Your task to perform on an android device: Open Reddit.com Image 0: 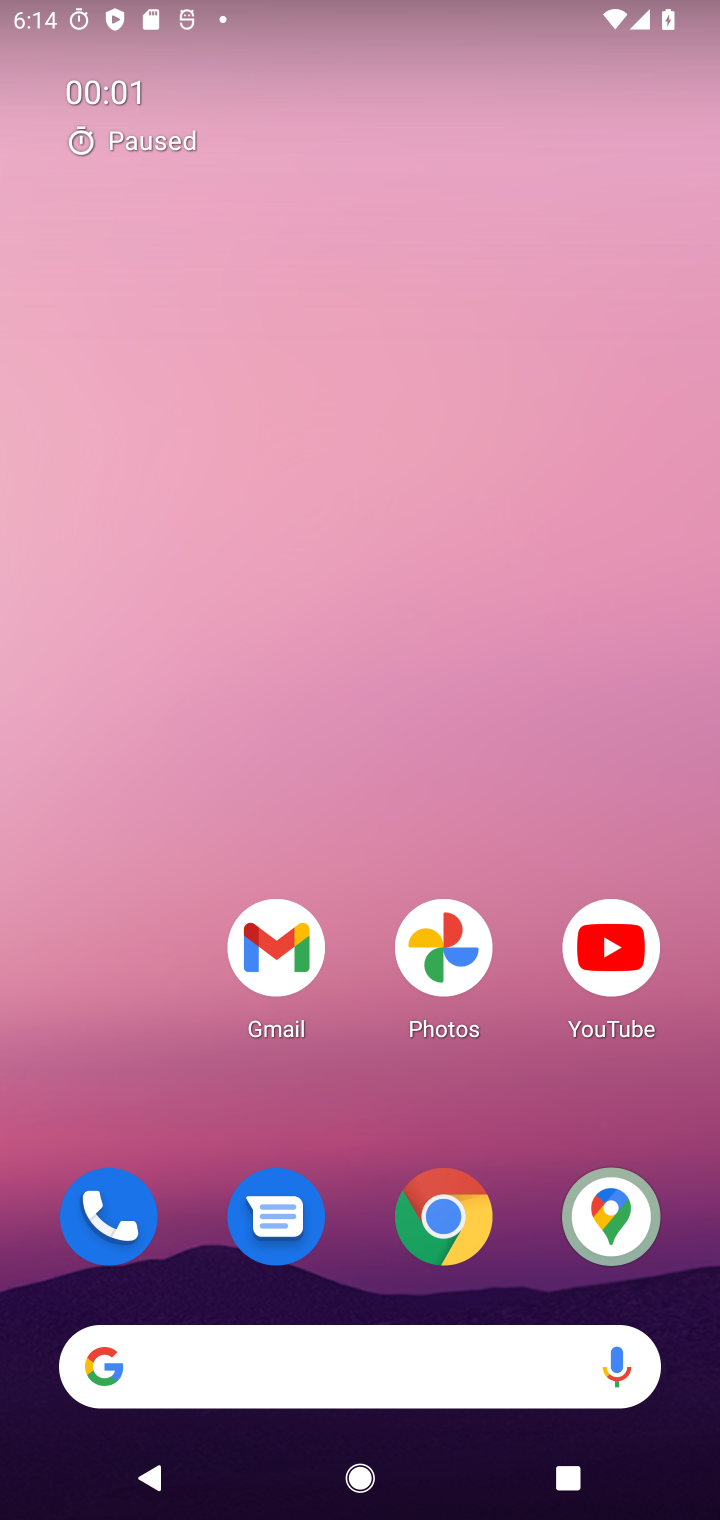
Step 0: drag from (538, 1092) to (432, 96)
Your task to perform on an android device: Open Reddit.com Image 1: 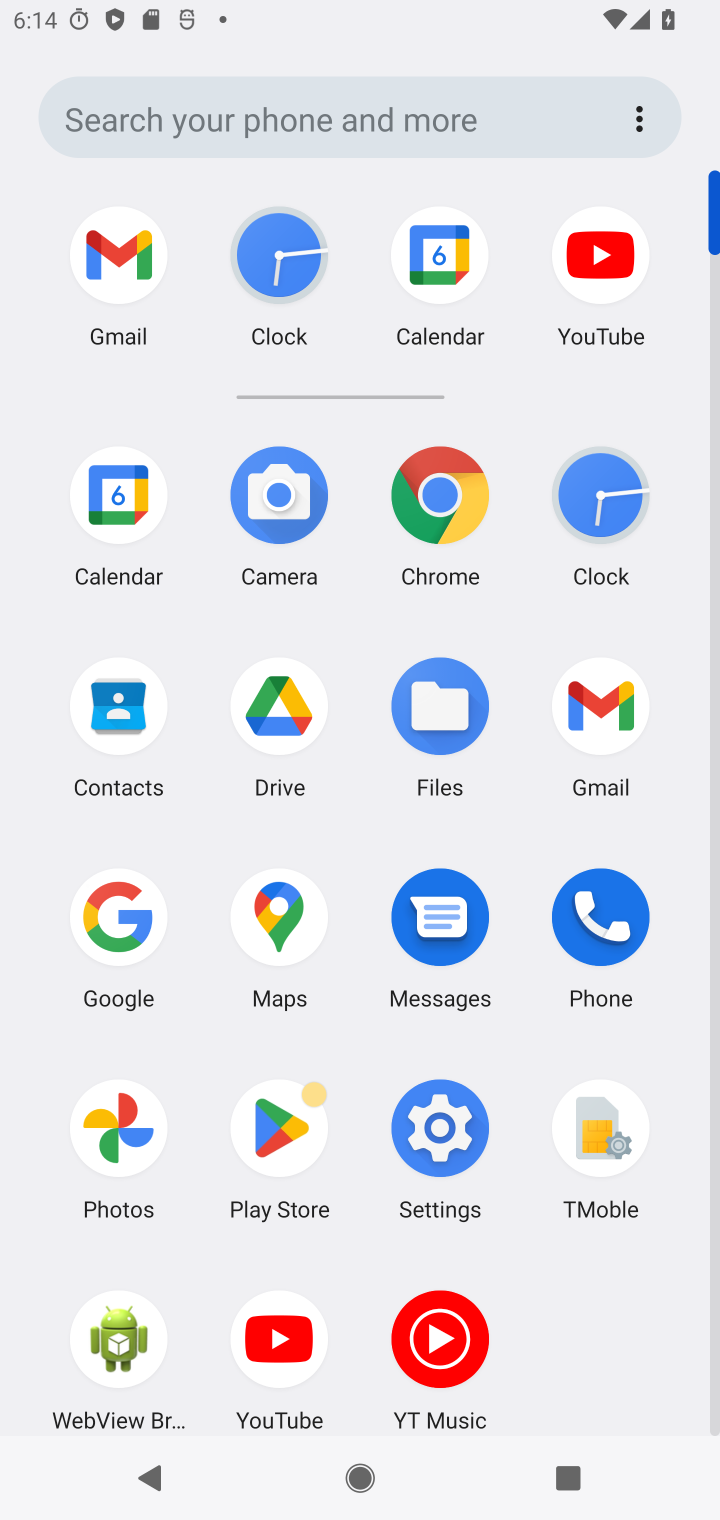
Step 1: click (440, 494)
Your task to perform on an android device: Open Reddit.com Image 2: 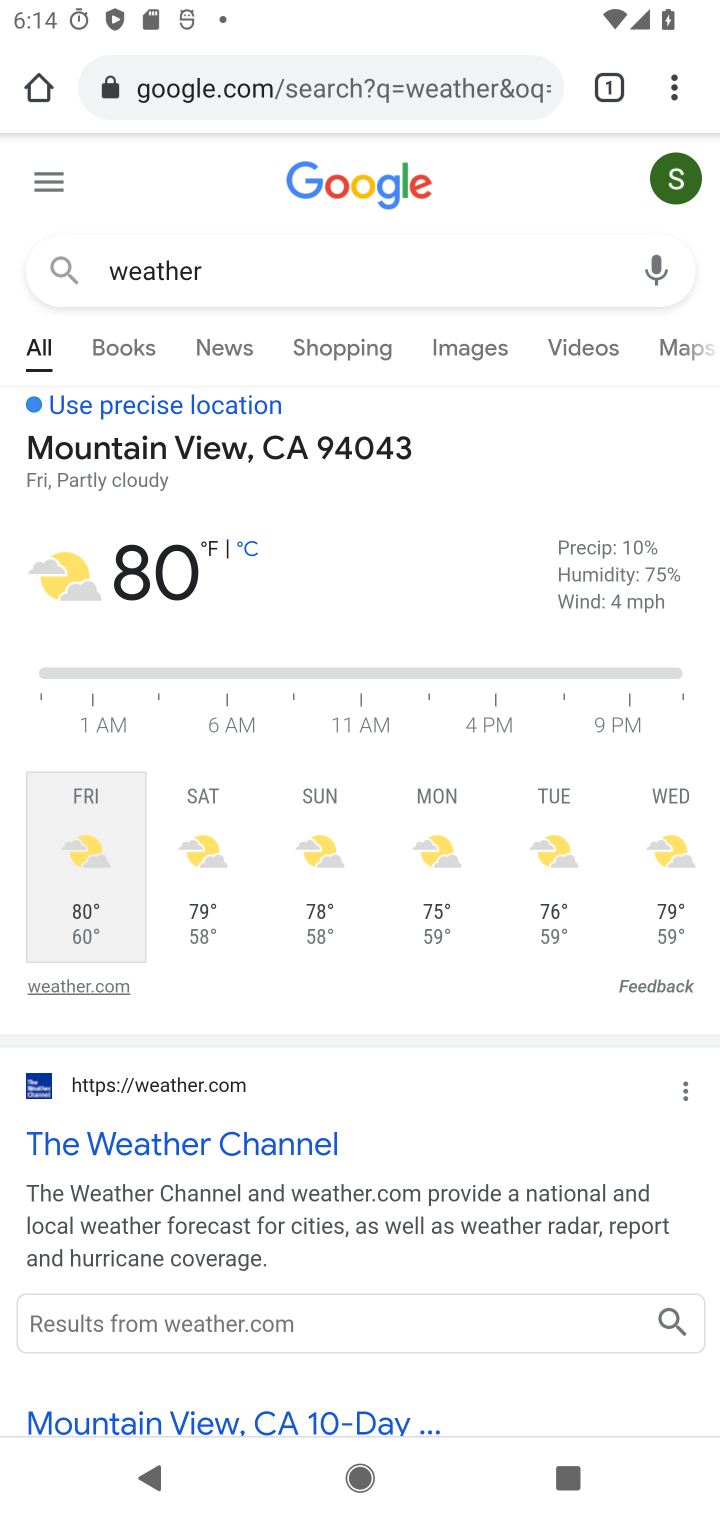
Step 2: click (346, 64)
Your task to perform on an android device: Open Reddit.com Image 3: 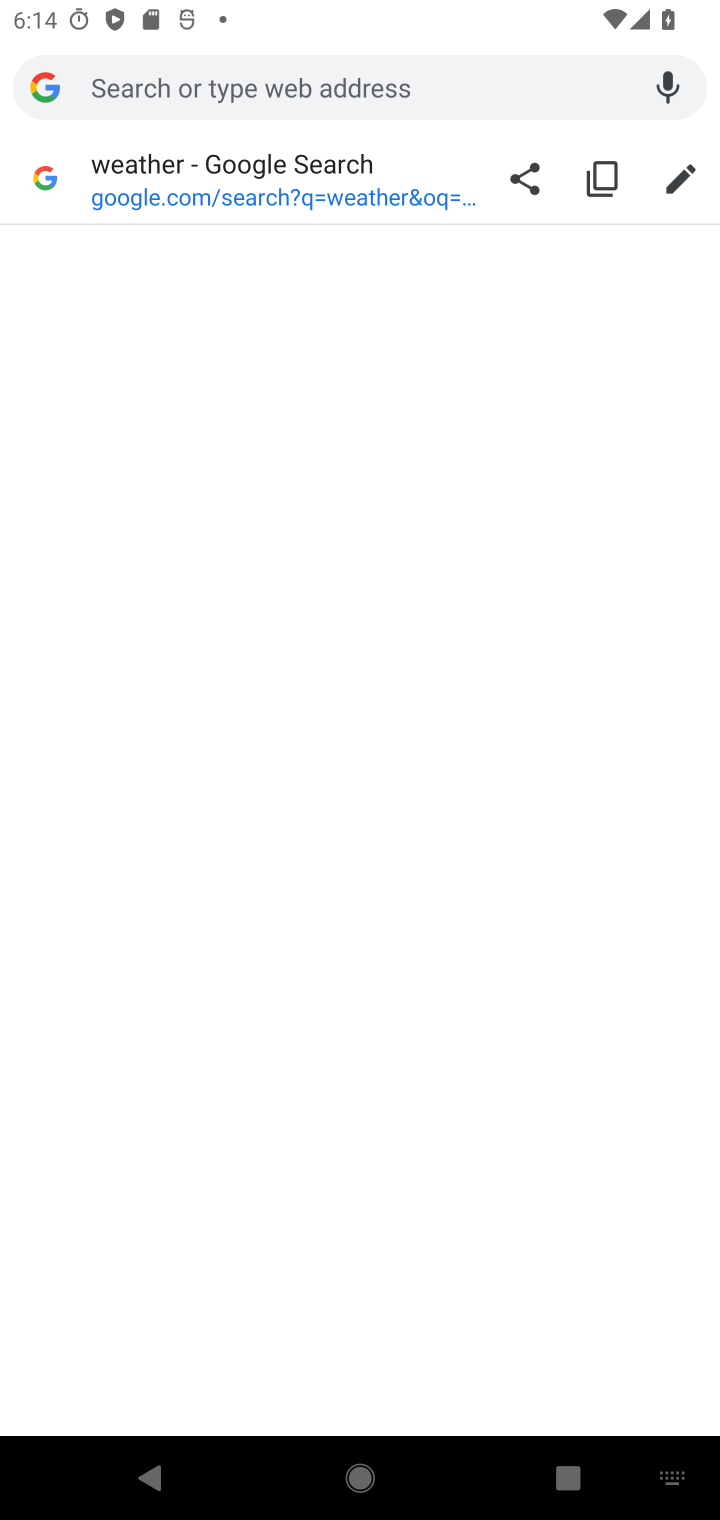
Step 3: type "reddit.com"
Your task to perform on an android device: Open Reddit.com Image 4: 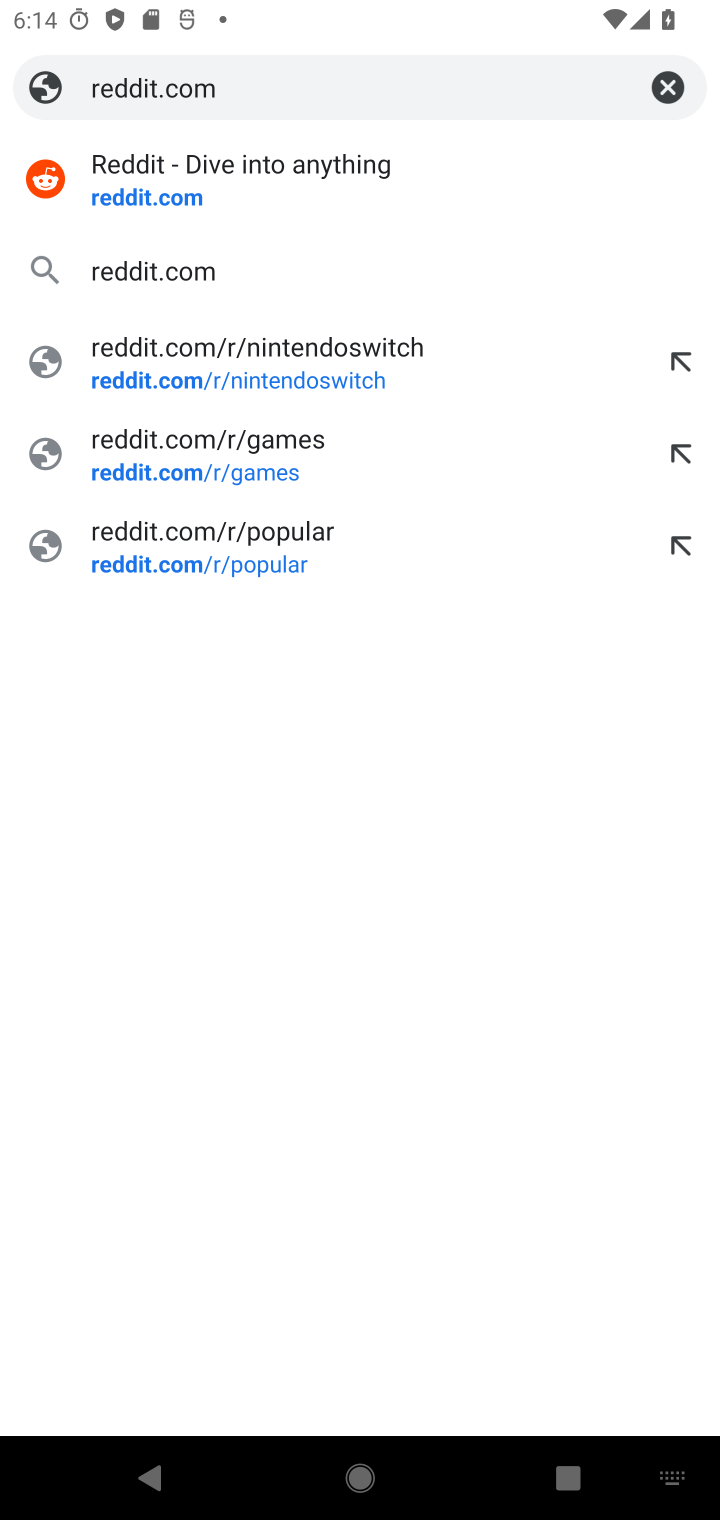
Step 4: click (134, 210)
Your task to perform on an android device: Open Reddit.com Image 5: 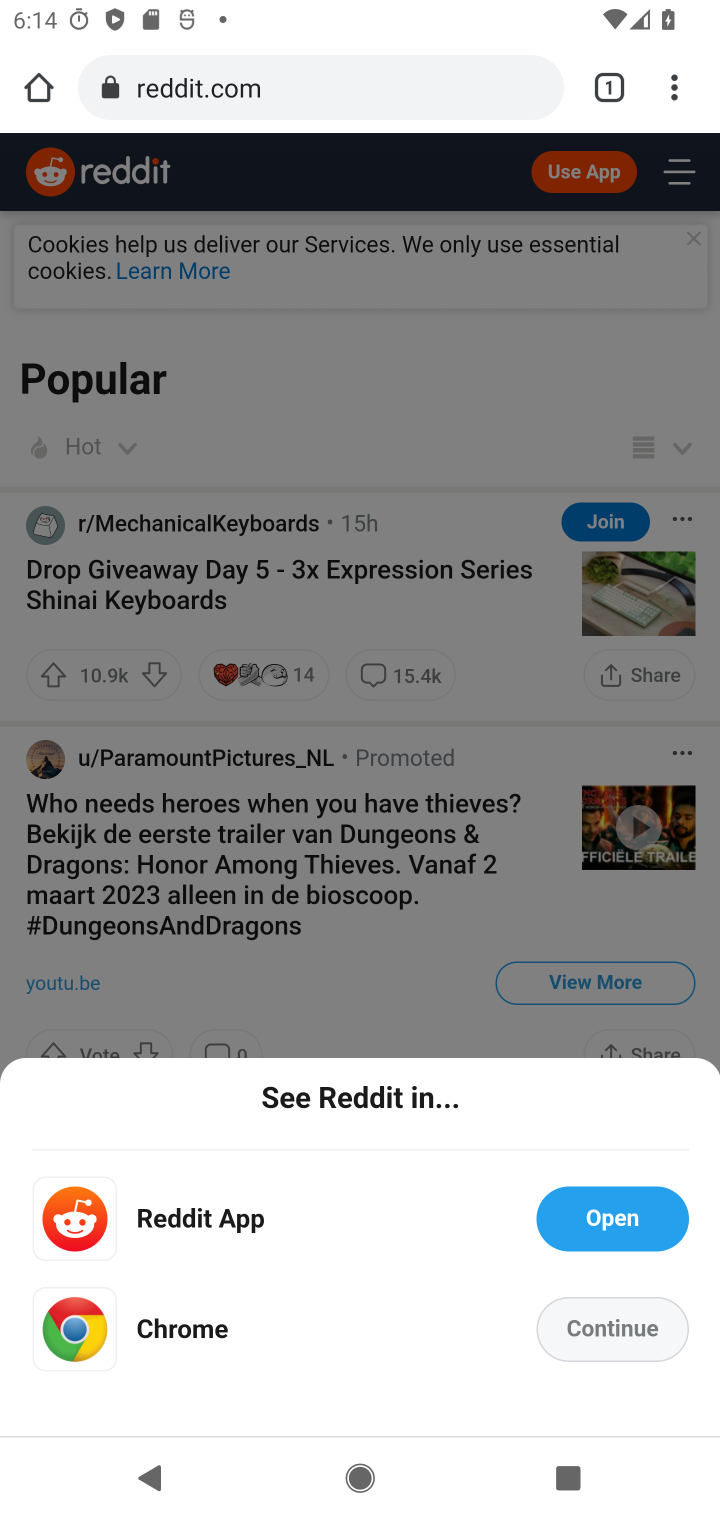
Step 5: task complete